Your task to perform on an android device: Open Google Chrome and open the bookmarks view Image 0: 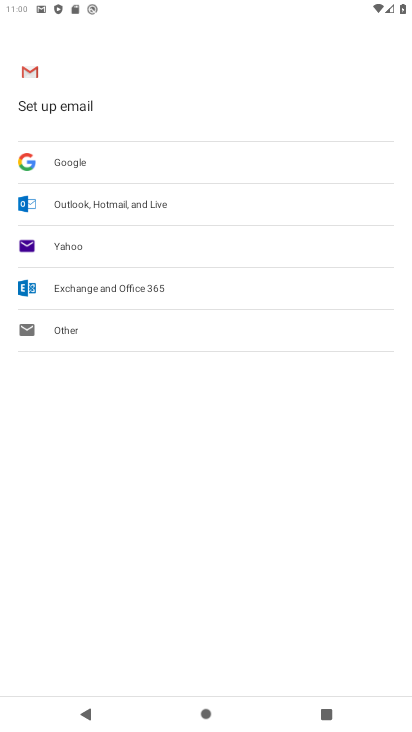
Step 0: press home button
Your task to perform on an android device: Open Google Chrome and open the bookmarks view Image 1: 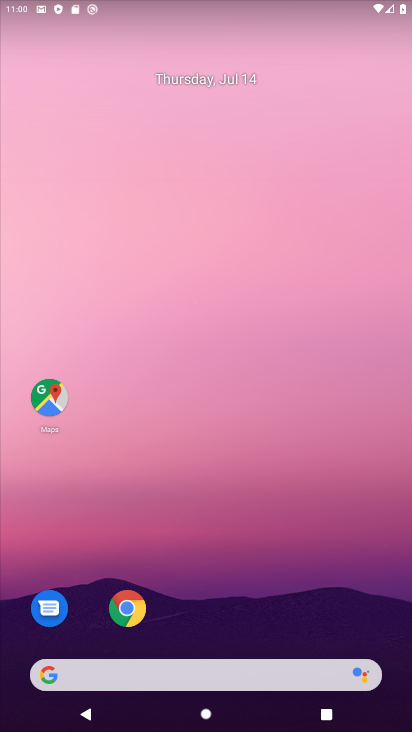
Step 1: drag from (324, 528) to (358, 65)
Your task to perform on an android device: Open Google Chrome and open the bookmarks view Image 2: 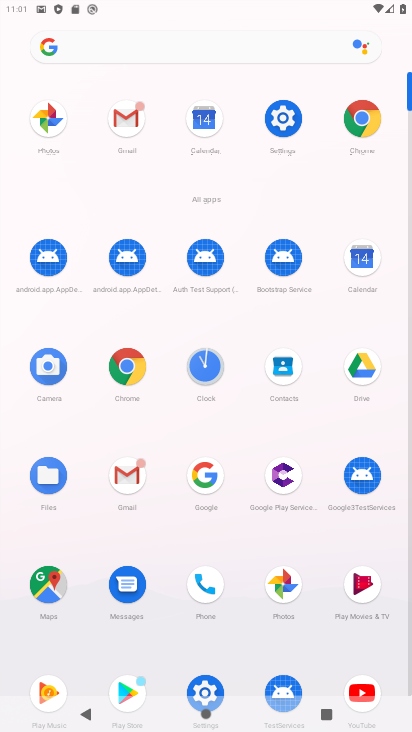
Step 2: click (348, 125)
Your task to perform on an android device: Open Google Chrome and open the bookmarks view Image 3: 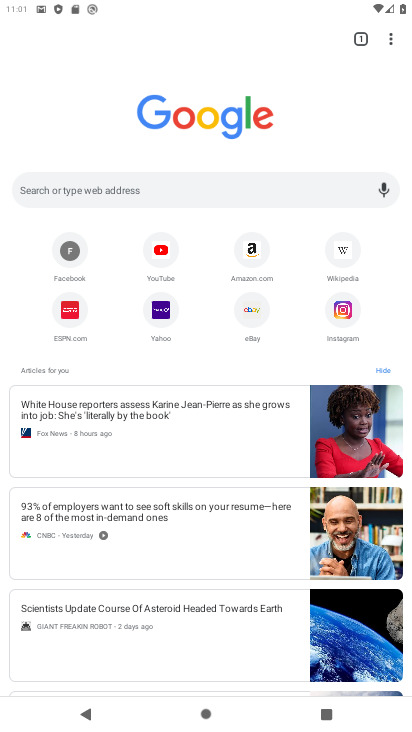
Step 3: task complete